Your task to perform on an android device: Open Wikipedia Image 0: 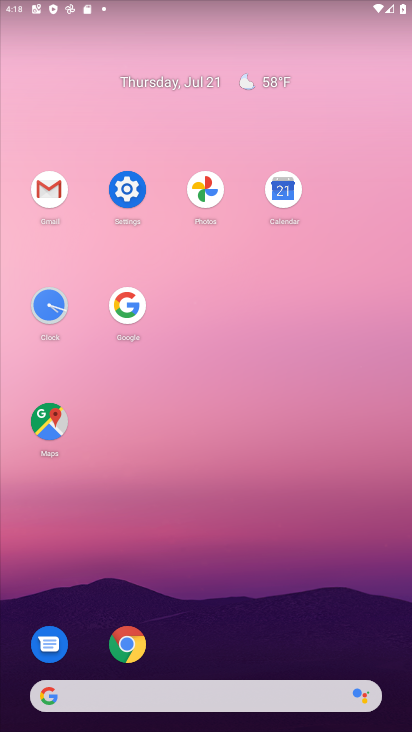
Step 0: click (116, 643)
Your task to perform on an android device: Open Wikipedia Image 1: 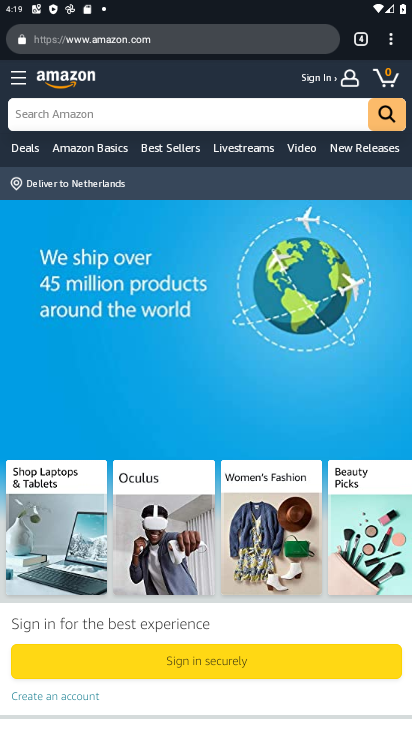
Step 1: click (356, 39)
Your task to perform on an android device: Open Wikipedia Image 2: 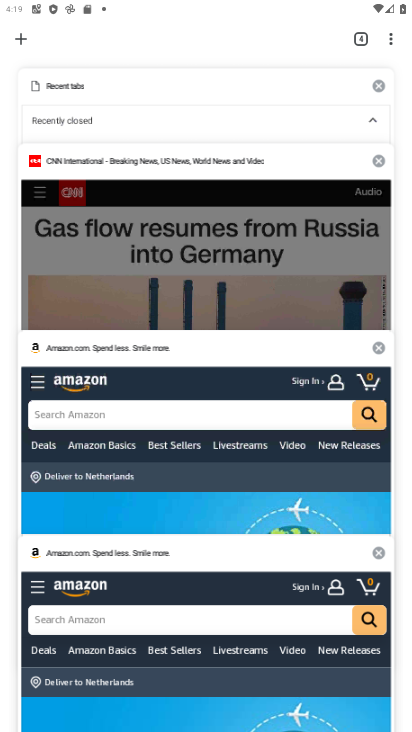
Step 2: click (25, 39)
Your task to perform on an android device: Open Wikipedia Image 3: 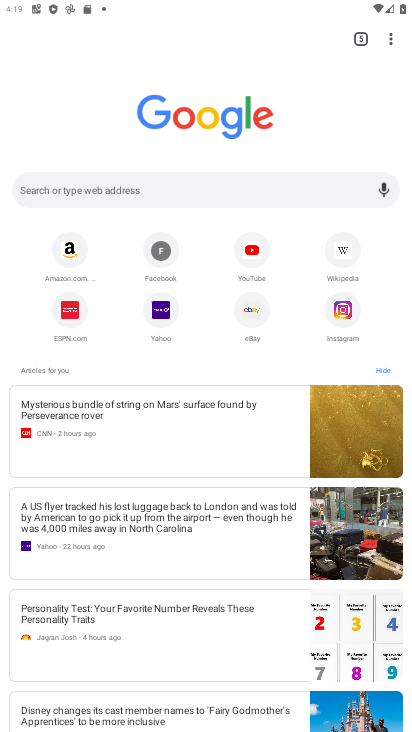
Step 3: click (348, 246)
Your task to perform on an android device: Open Wikipedia Image 4: 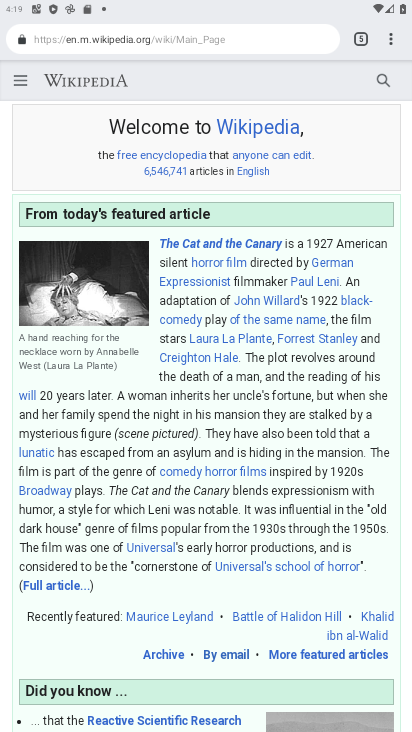
Step 4: task complete